Your task to perform on an android device: turn on translation in the chrome app Image 0: 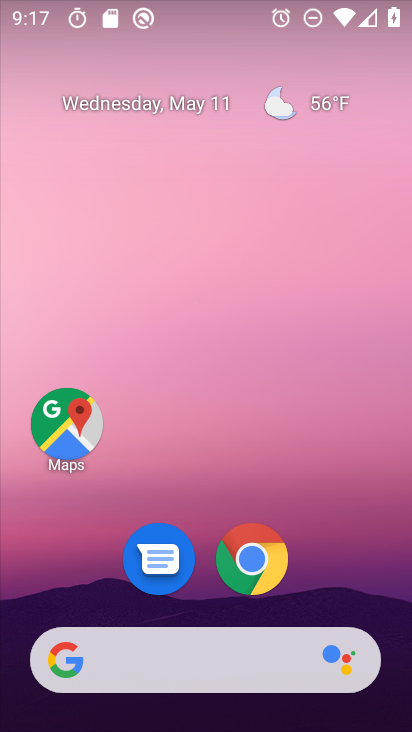
Step 0: click (254, 562)
Your task to perform on an android device: turn on translation in the chrome app Image 1: 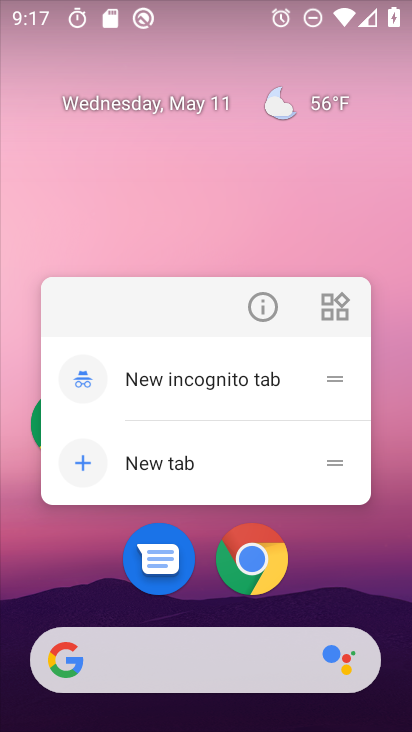
Step 1: click (256, 561)
Your task to perform on an android device: turn on translation in the chrome app Image 2: 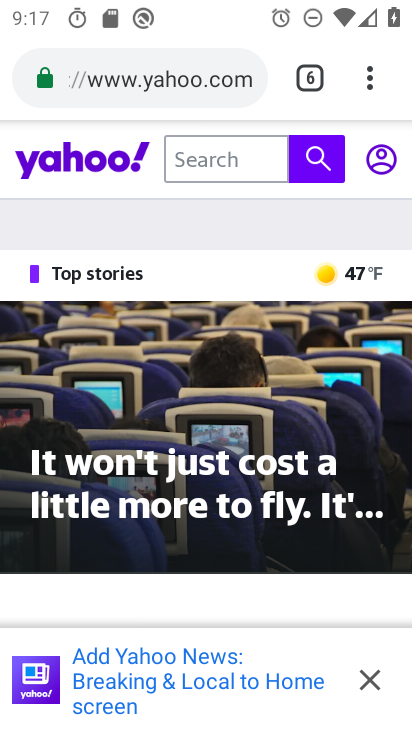
Step 2: click (377, 79)
Your task to perform on an android device: turn on translation in the chrome app Image 3: 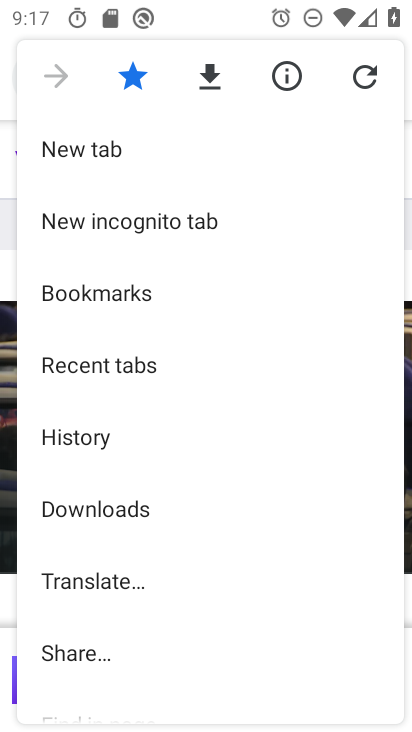
Step 3: drag from (182, 578) to (221, 182)
Your task to perform on an android device: turn on translation in the chrome app Image 4: 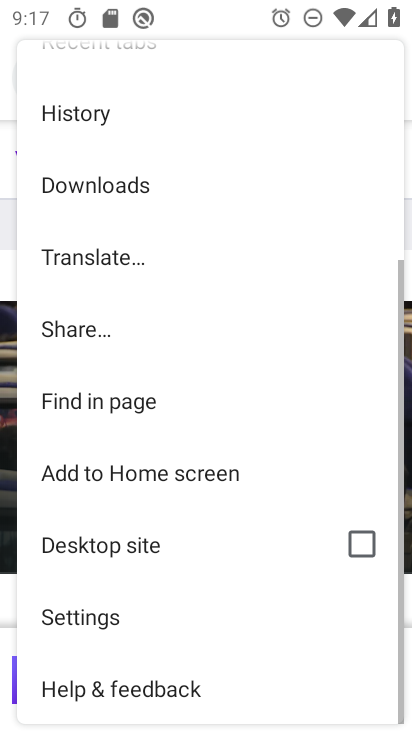
Step 4: click (90, 615)
Your task to perform on an android device: turn on translation in the chrome app Image 5: 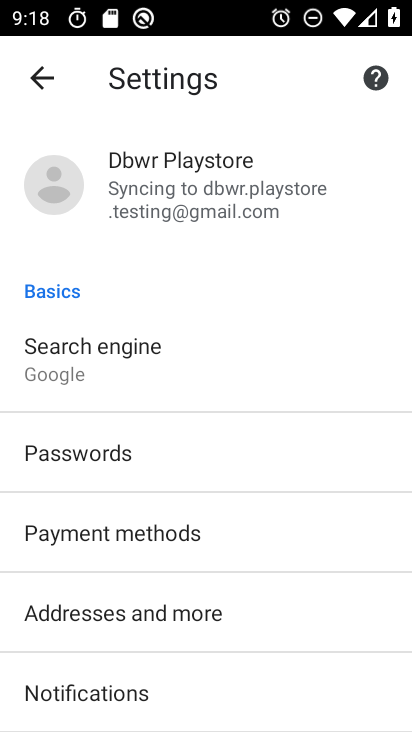
Step 5: drag from (328, 613) to (274, 226)
Your task to perform on an android device: turn on translation in the chrome app Image 6: 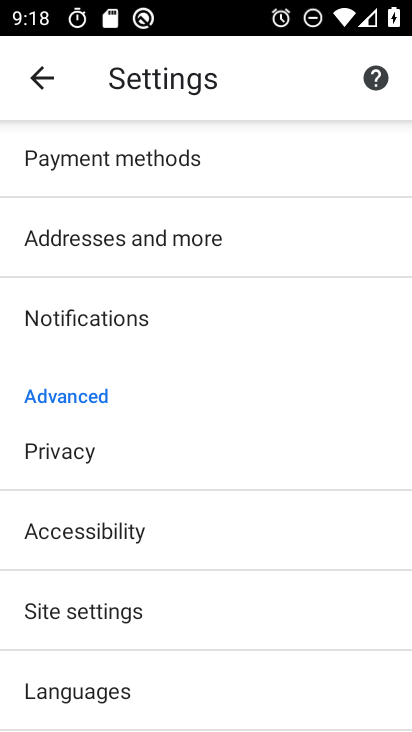
Step 6: click (142, 619)
Your task to perform on an android device: turn on translation in the chrome app Image 7: 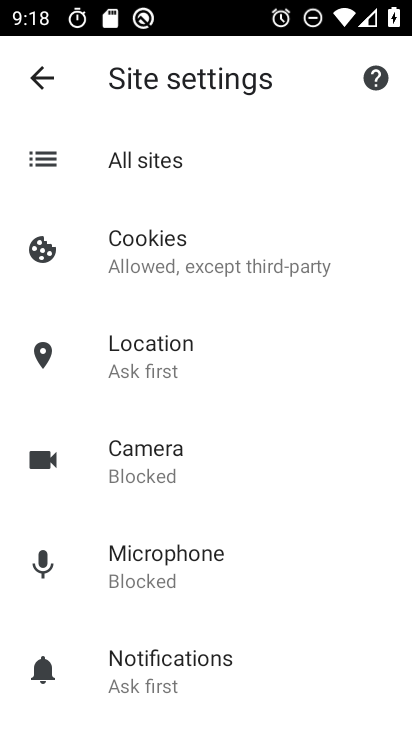
Step 7: click (27, 49)
Your task to perform on an android device: turn on translation in the chrome app Image 8: 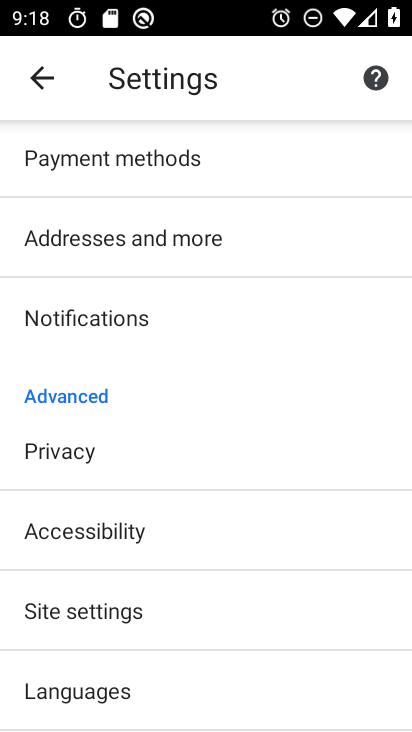
Step 8: click (121, 693)
Your task to perform on an android device: turn on translation in the chrome app Image 9: 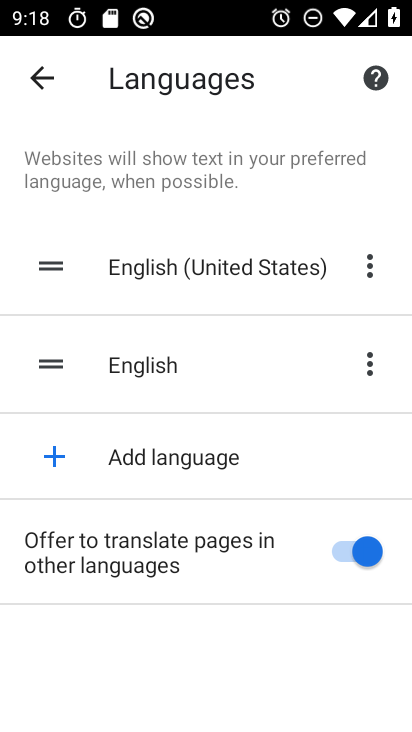
Step 9: task complete